Your task to perform on an android device: Show me productivity apps on the Play Store Image 0: 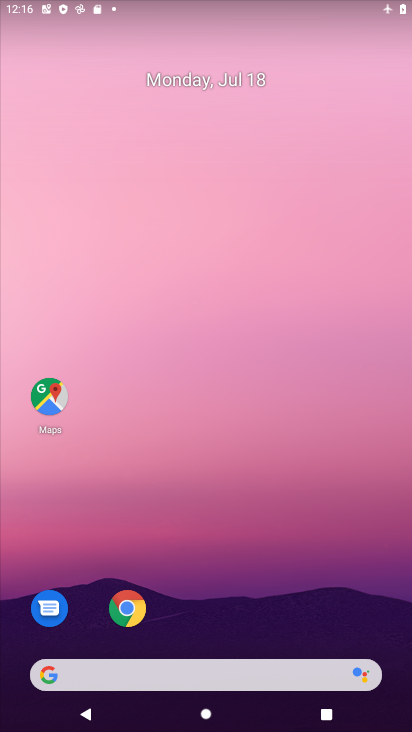
Step 0: drag from (367, 619) to (237, 4)
Your task to perform on an android device: Show me productivity apps on the Play Store Image 1: 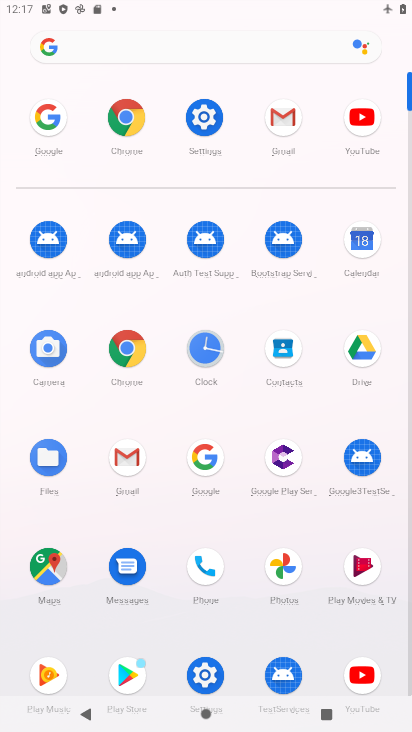
Step 1: click (127, 679)
Your task to perform on an android device: Show me productivity apps on the Play Store Image 2: 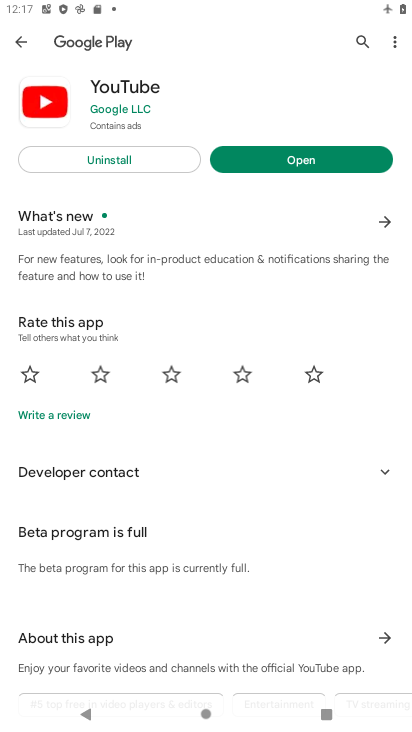
Step 2: press back button
Your task to perform on an android device: Show me productivity apps on the Play Store Image 3: 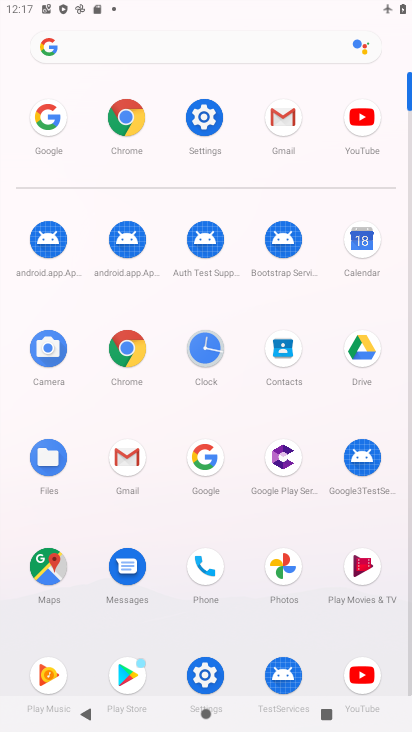
Step 3: click (133, 667)
Your task to perform on an android device: Show me productivity apps on the Play Store Image 4: 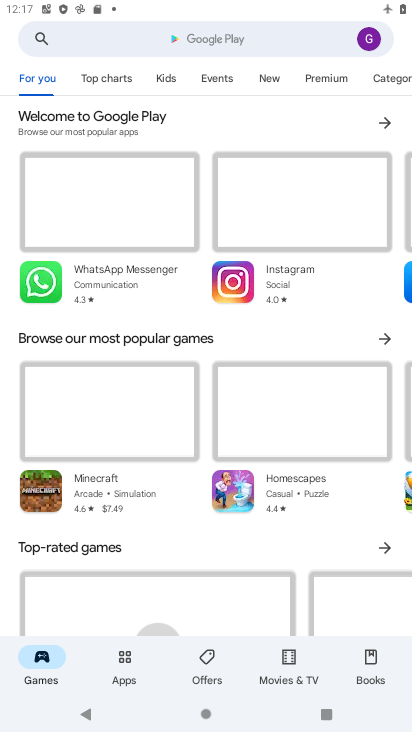
Step 4: click (182, 39)
Your task to perform on an android device: Show me productivity apps on the Play Store Image 5: 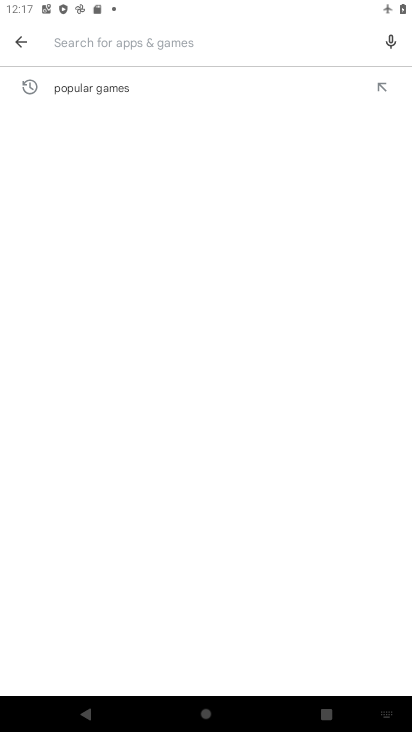
Step 5: click (107, 88)
Your task to perform on an android device: Show me productivity apps on the Play Store Image 6: 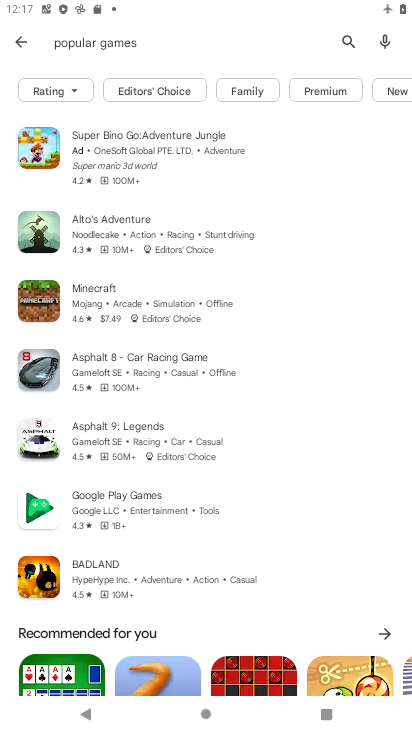
Step 6: task complete